Your task to perform on an android device: What is the news today? Image 0: 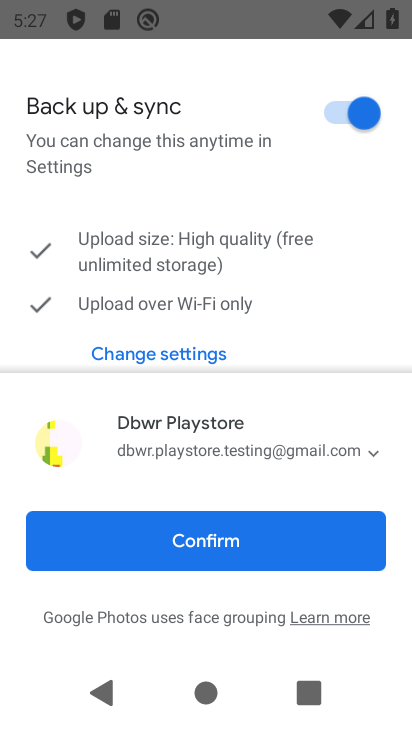
Step 0: press home button
Your task to perform on an android device: What is the news today? Image 1: 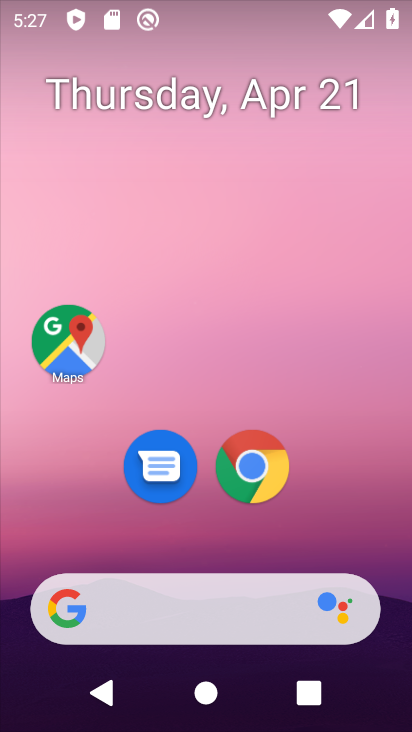
Step 1: drag from (260, 222) to (316, 221)
Your task to perform on an android device: What is the news today? Image 2: 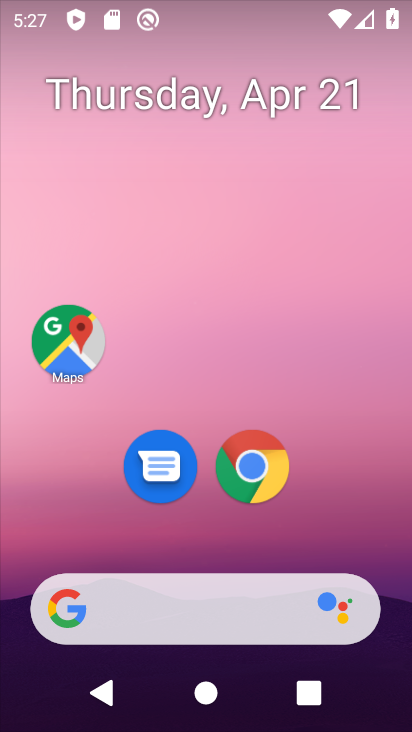
Step 2: drag from (22, 252) to (387, 245)
Your task to perform on an android device: What is the news today? Image 3: 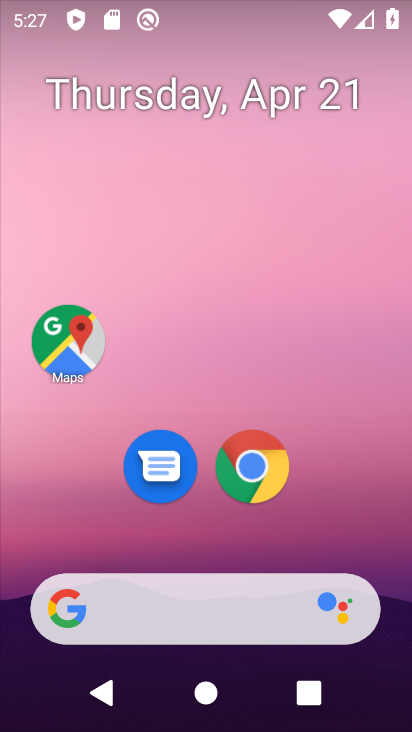
Step 3: drag from (390, 613) to (342, 158)
Your task to perform on an android device: What is the news today? Image 4: 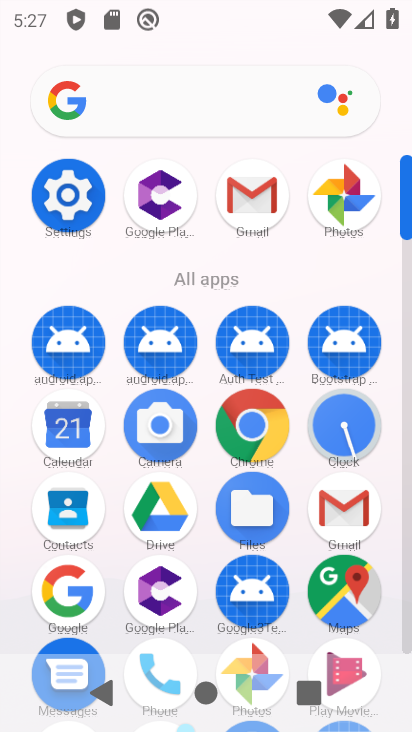
Step 4: click (73, 590)
Your task to perform on an android device: What is the news today? Image 5: 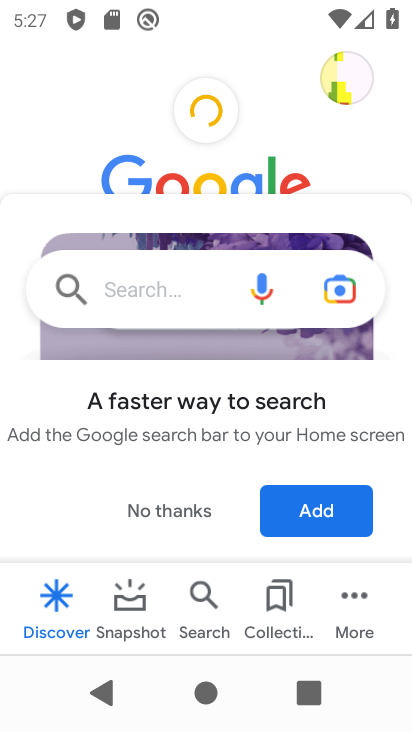
Step 5: click (137, 515)
Your task to perform on an android device: What is the news today? Image 6: 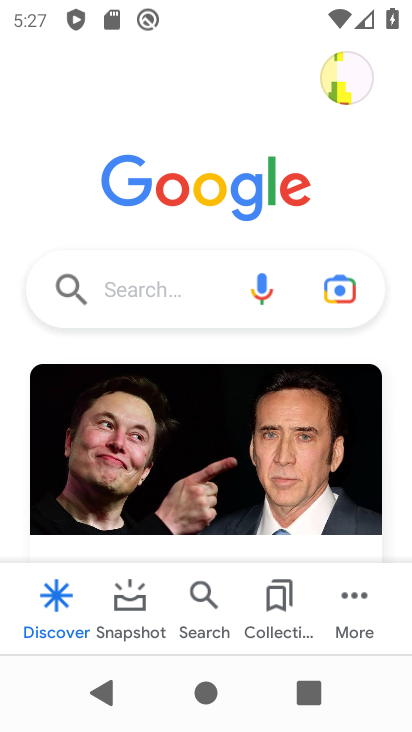
Step 6: task complete